Your task to perform on an android device: Open the web browser Image 0: 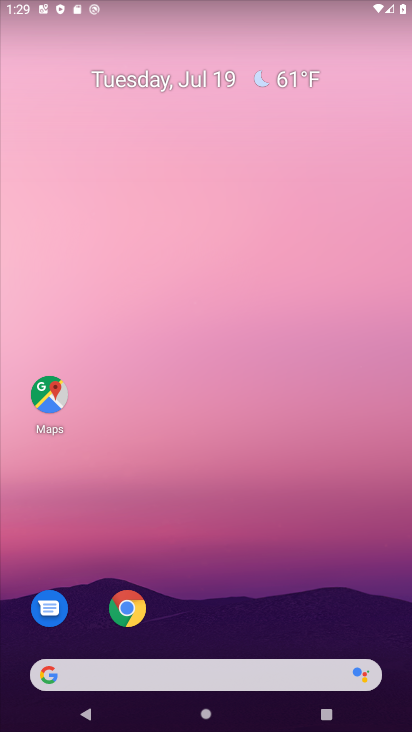
Step 0: drag from (290, 587) to (314, 108)
Your task to perform on an android device: Open the web browser Image 1: 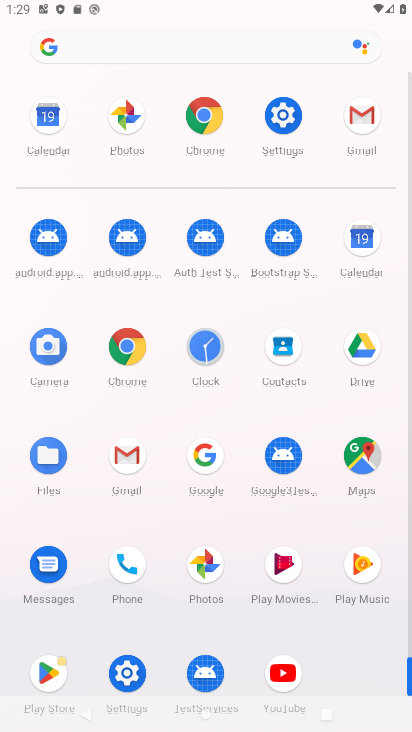
Step 1: click (210, 120)
Your task to perform on an android device: Open the web browser Image 2: 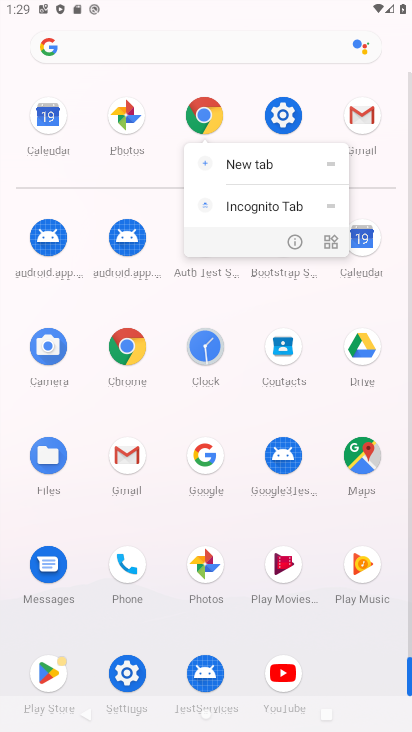
Step 2: click (210, 119)
Your task to perform on an android device: Open the web browser Image 3: 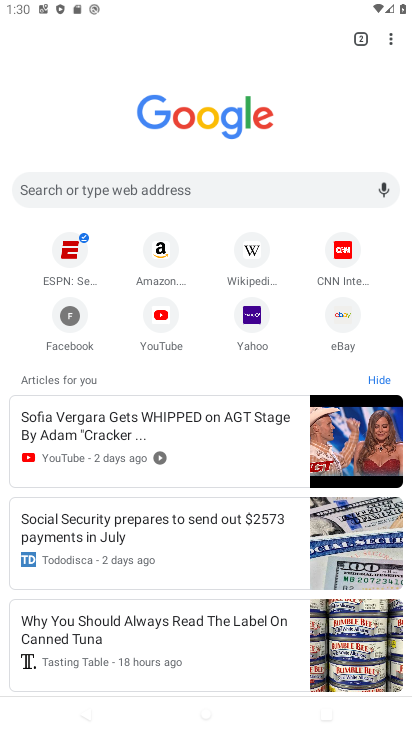
Step 3: task complete